Your task to perform on an android device: Nike Air Max 2020 shoes on Nike.com Image 0: 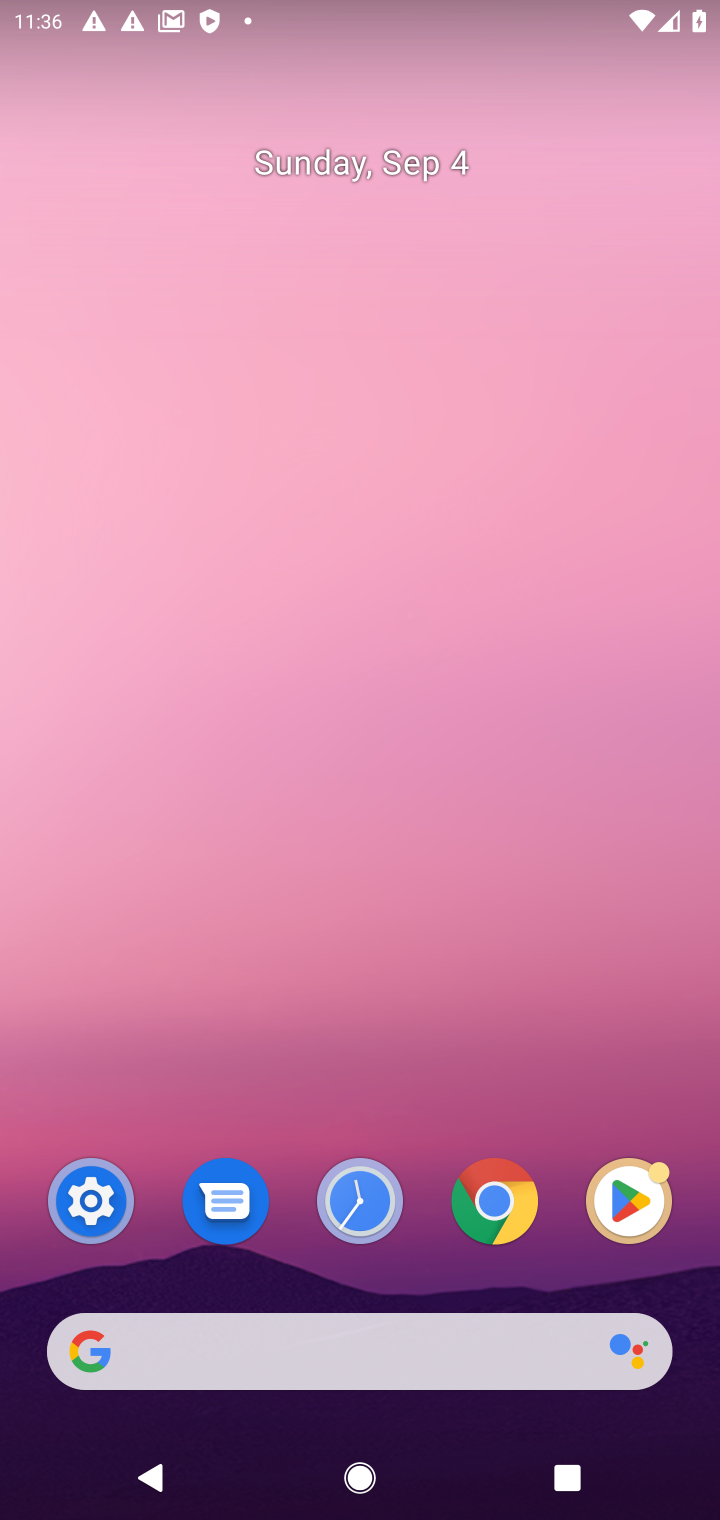
Step 0: click (521, 1201)
Your task to perform on an android device: Nike Air Max 2020 shoes on Nike.com Image 1: 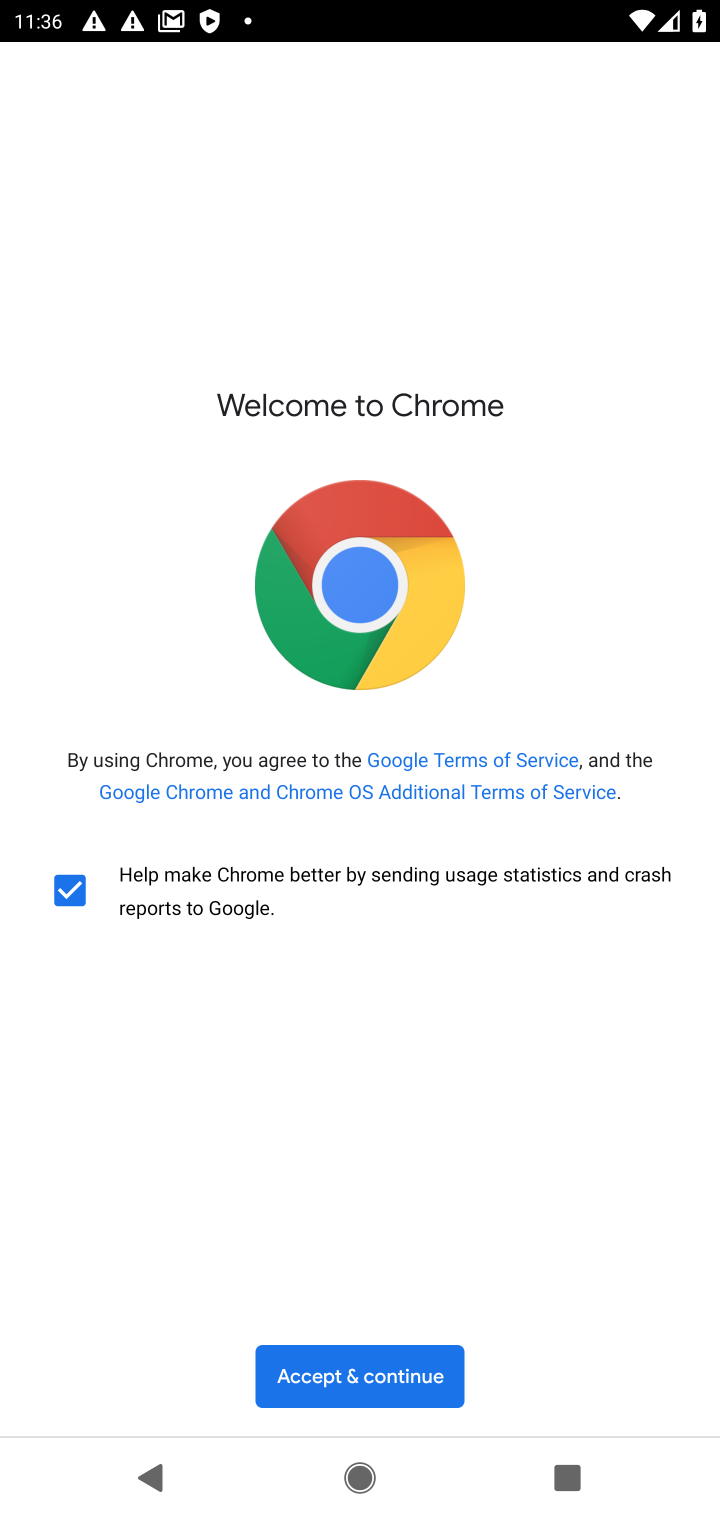
Step 1: click (330, 1373)
Your task to perform on an android device: Nike Air Max 2020 shoes on Nike.com Image 2: 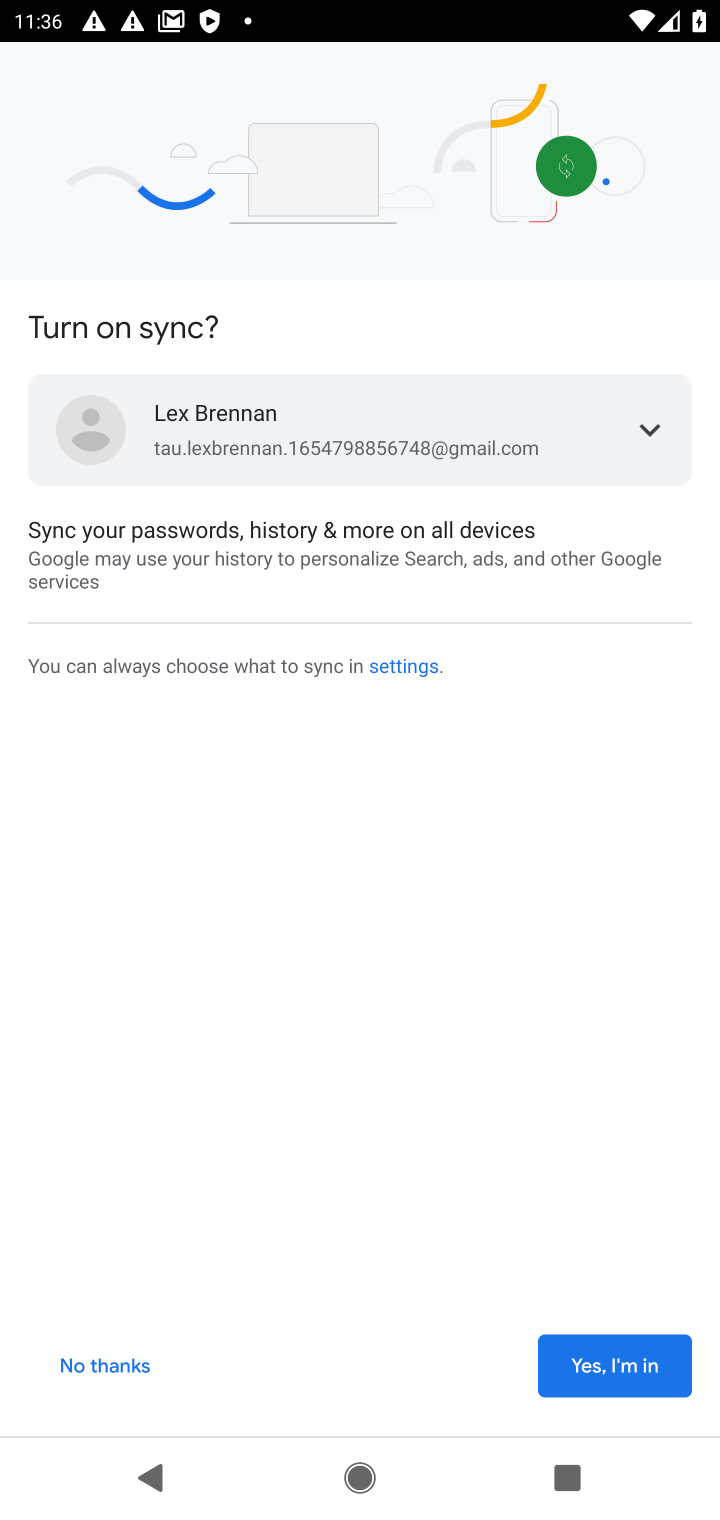
Step 2: click (587, 1365)
Your task to perform on an android device: Nike Air Max 2020 shoes on Nike.com Image 3: 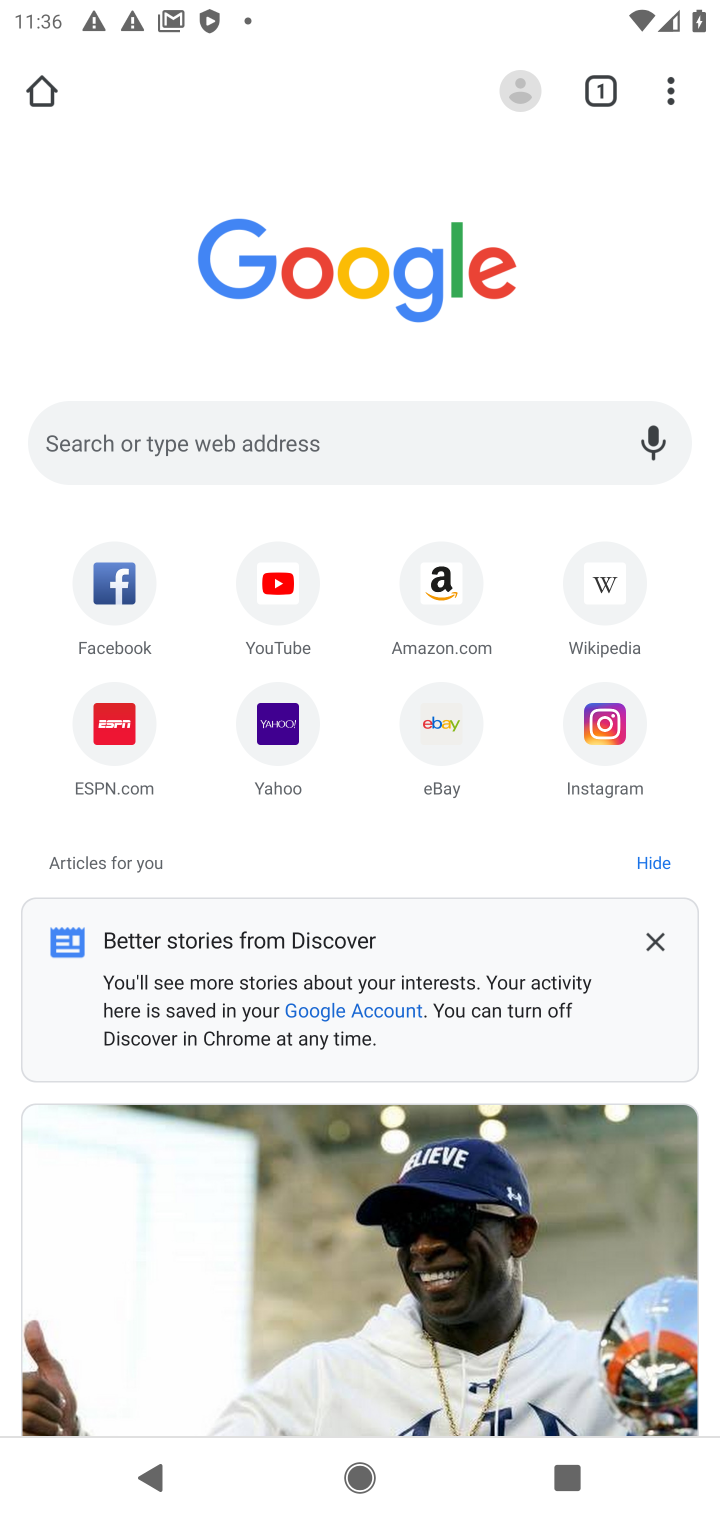
Step 3: click (286, 442)
Your task to perform on an android device: Nike Air Max 2020 shoes on Nike.com Image 4: 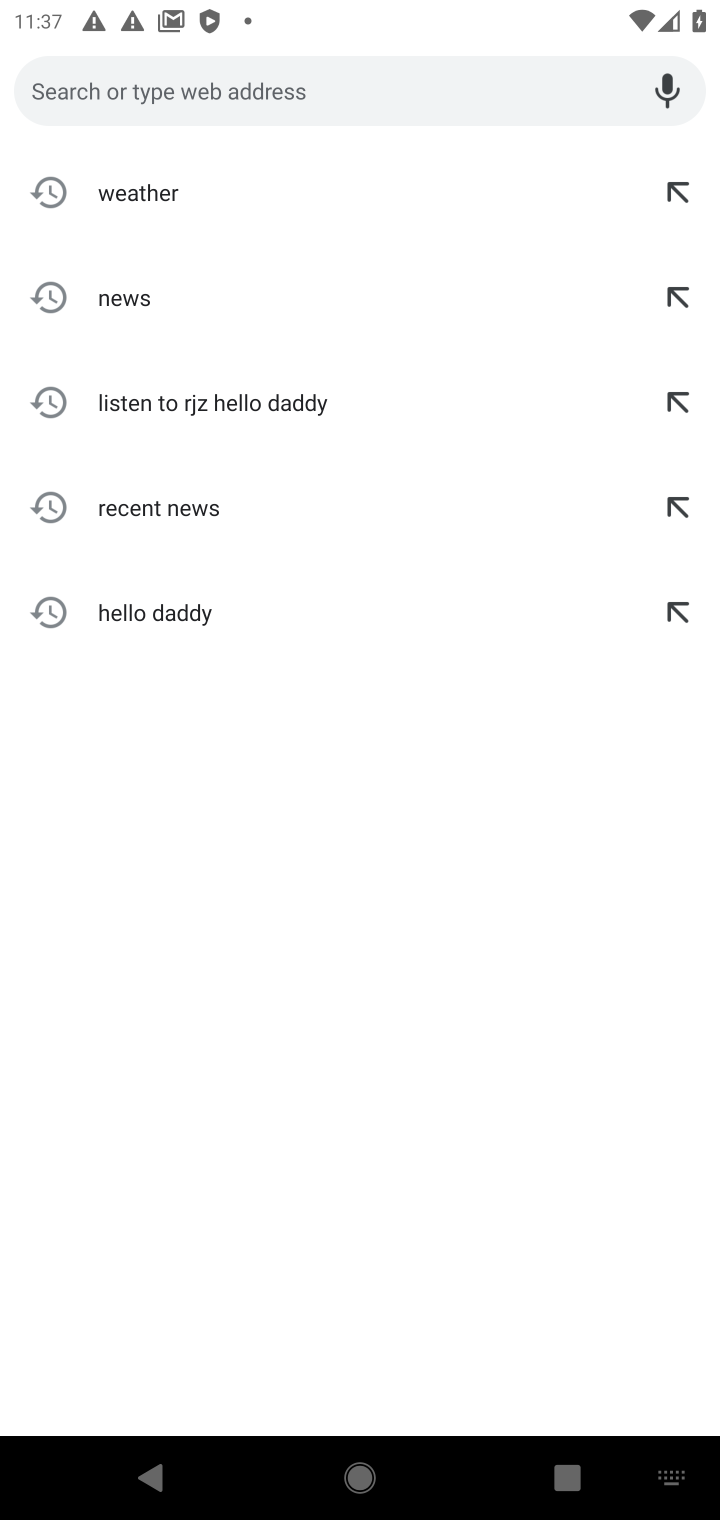
Step 4: type "nike.com"
Your task to perform on an android device: Nike Air Max 2020 shoes on Nike.com Image 5: 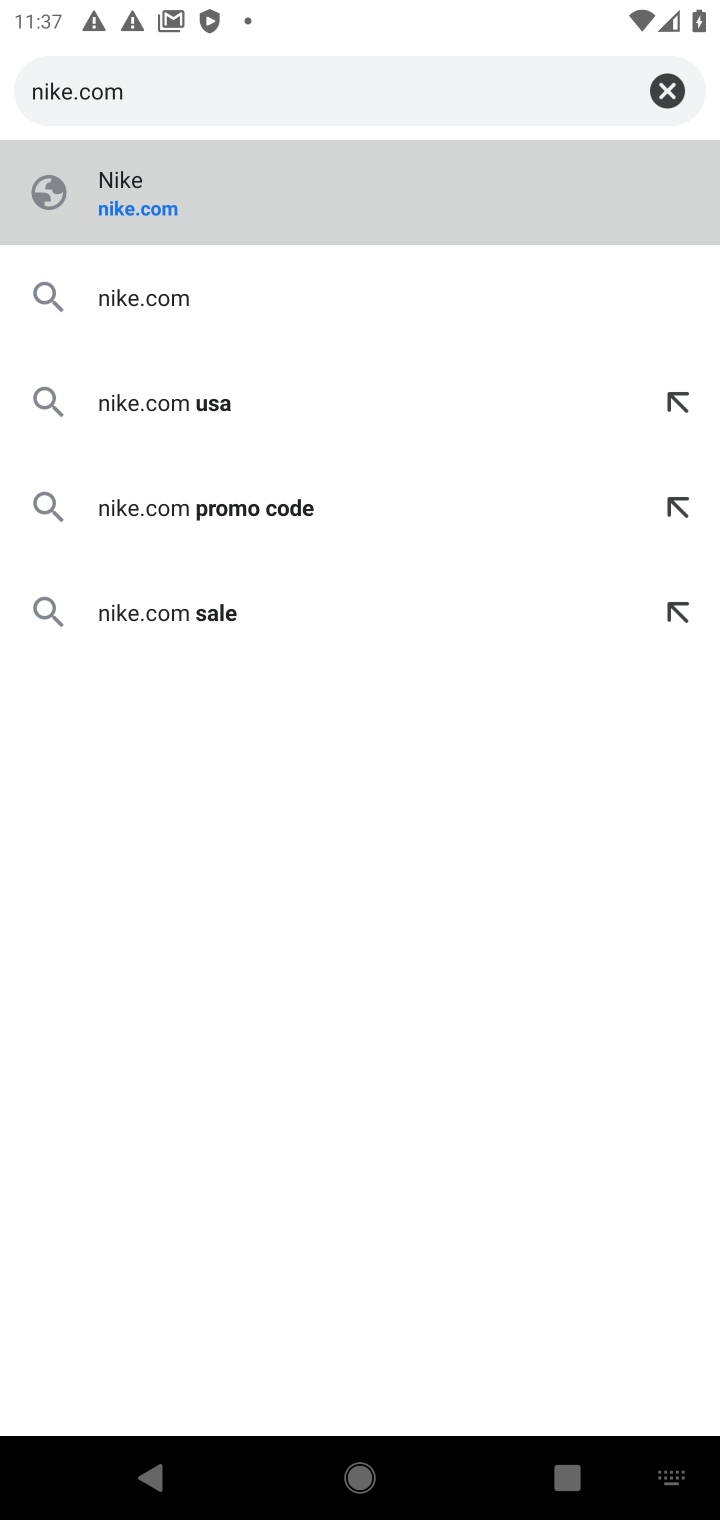
Step 5: click (182, 211)
Your task to perform on an android device: Nike Air Max 2020 shoes on Nike.com Image 6: 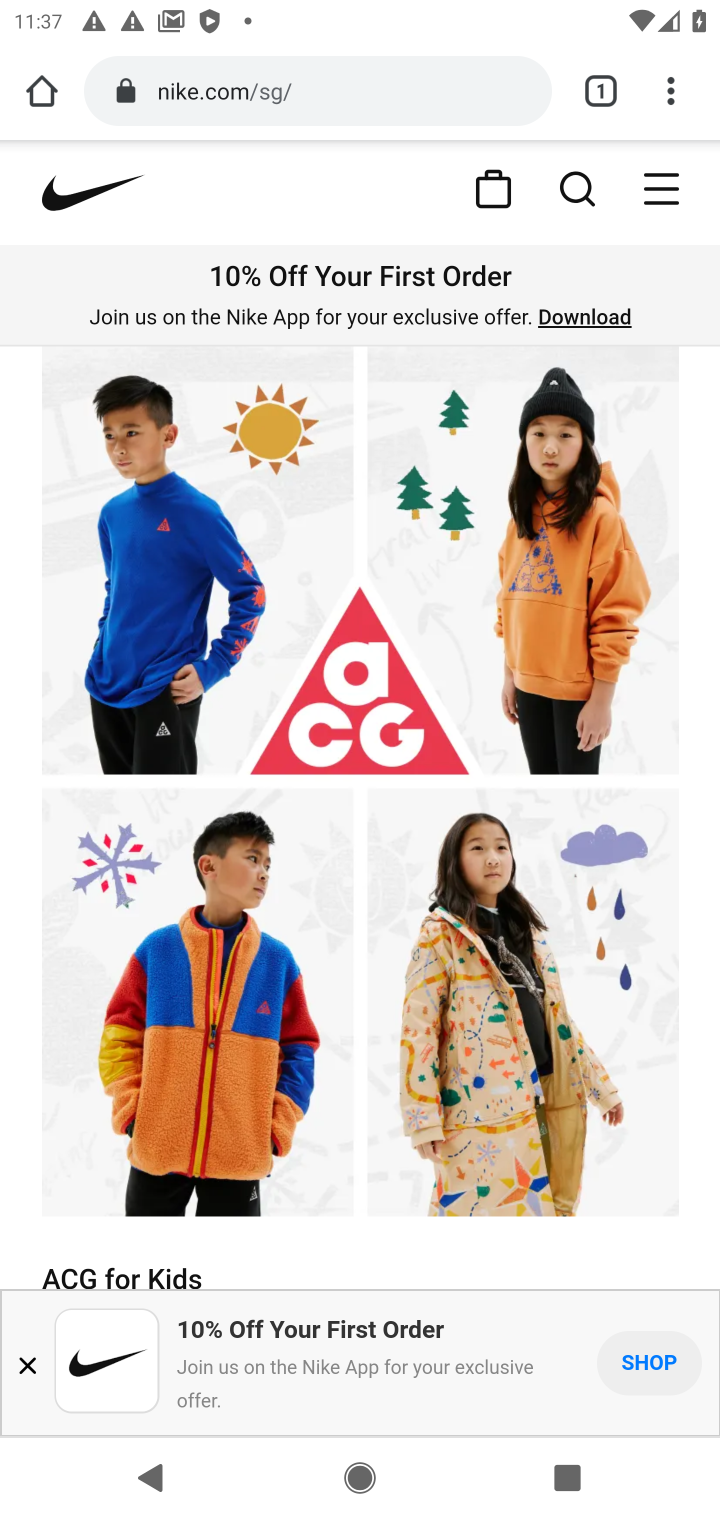
Step 6: click (562, 184)
Your task to perform on an android device: Nike Air Max 2020 shoes on Nike.com Image 7: 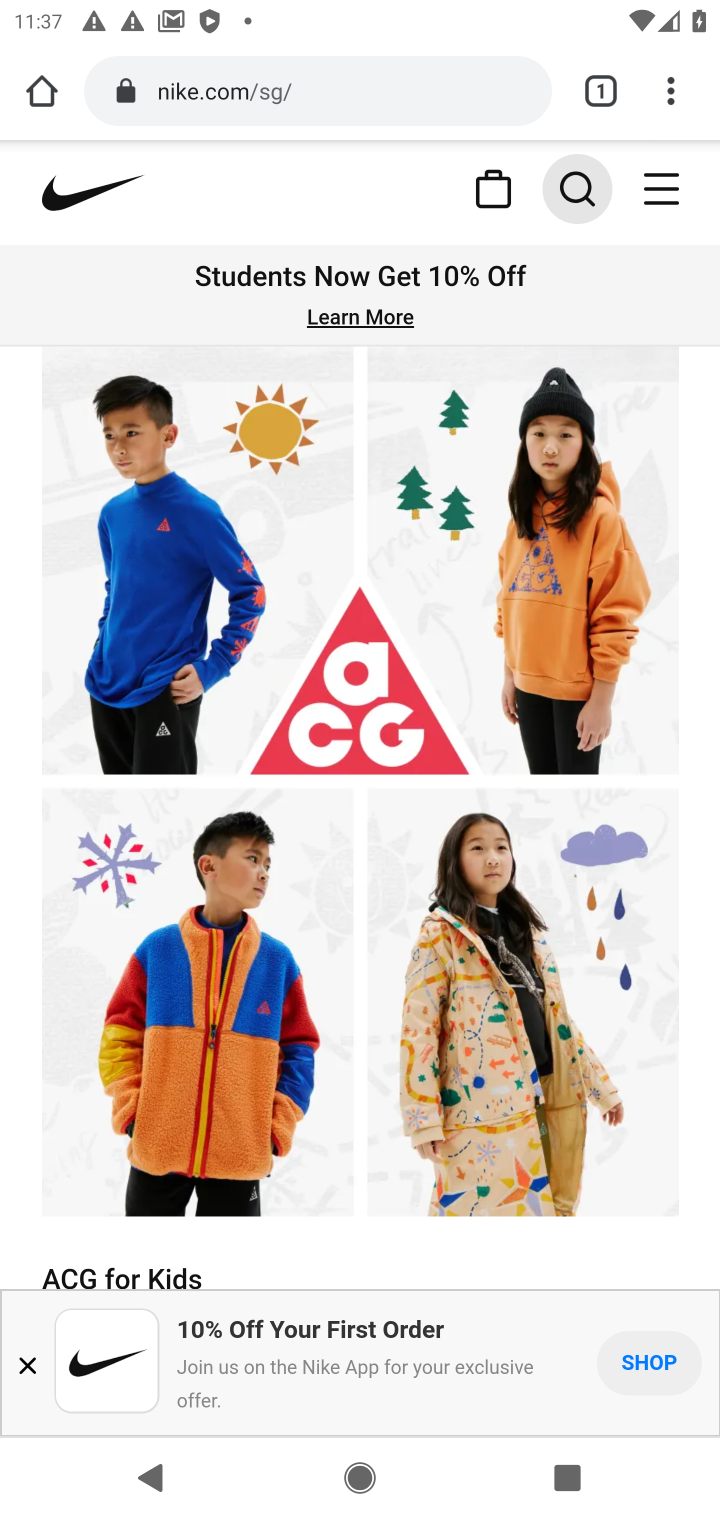
Step 7: click (568, 188)
Your task to perform on an android device: Nike Air Max 2020 shoes on Nike.com Image 8: 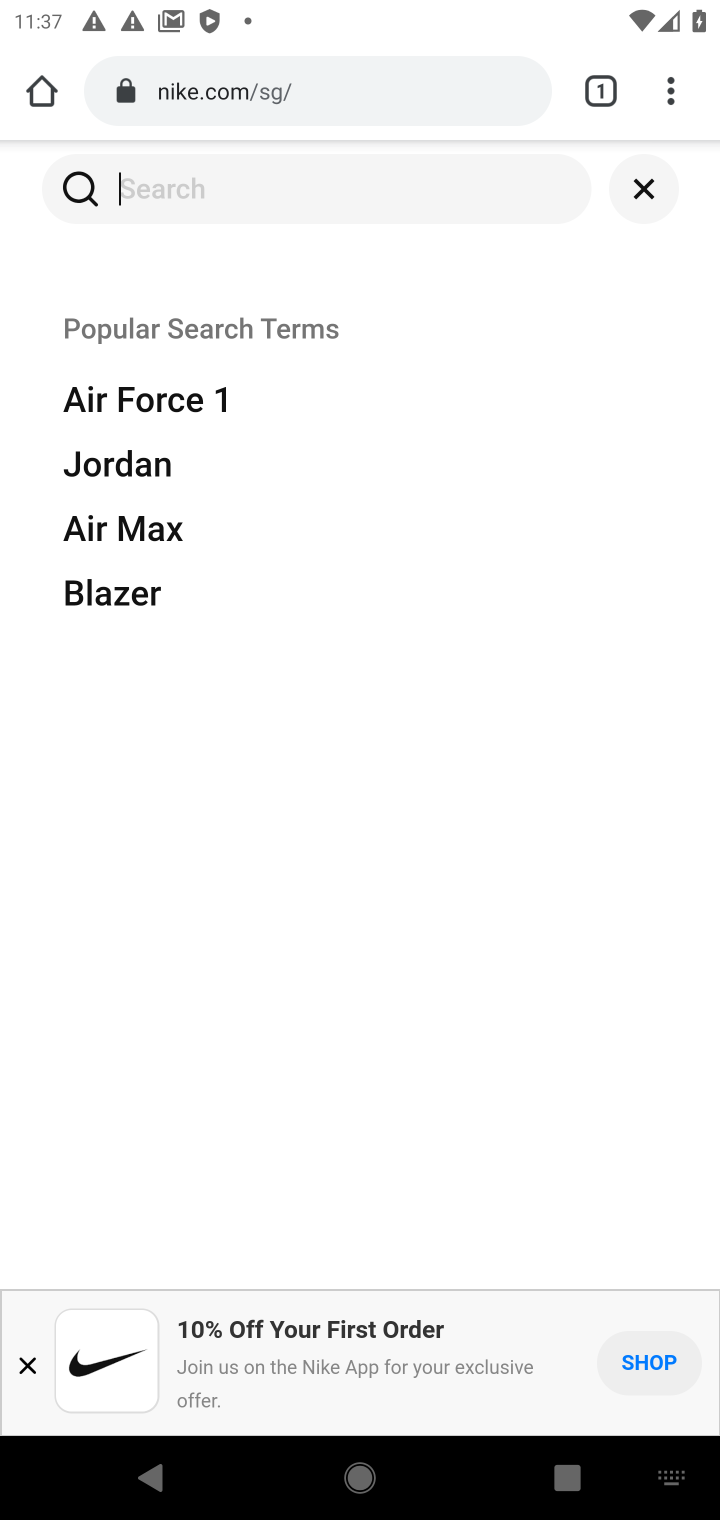
Step 8: click (134, 522)
Your task to perform on an android device: Nike Air Max 2020 shoes on Nike.com Image 9: 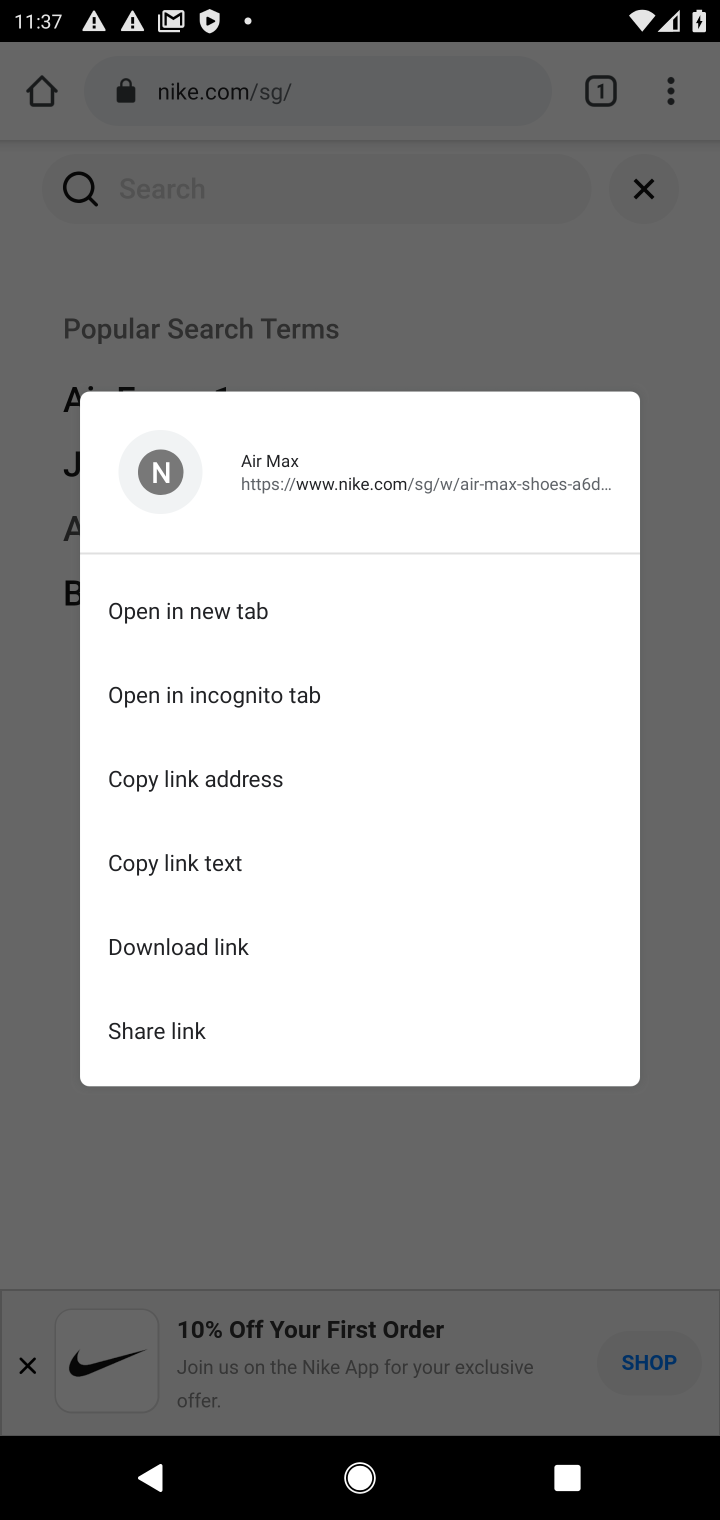
Step 9: click (48, 828)
Your task to perform on an android device: Nike Air Max 2020 shoes on Nike.com Image 10: 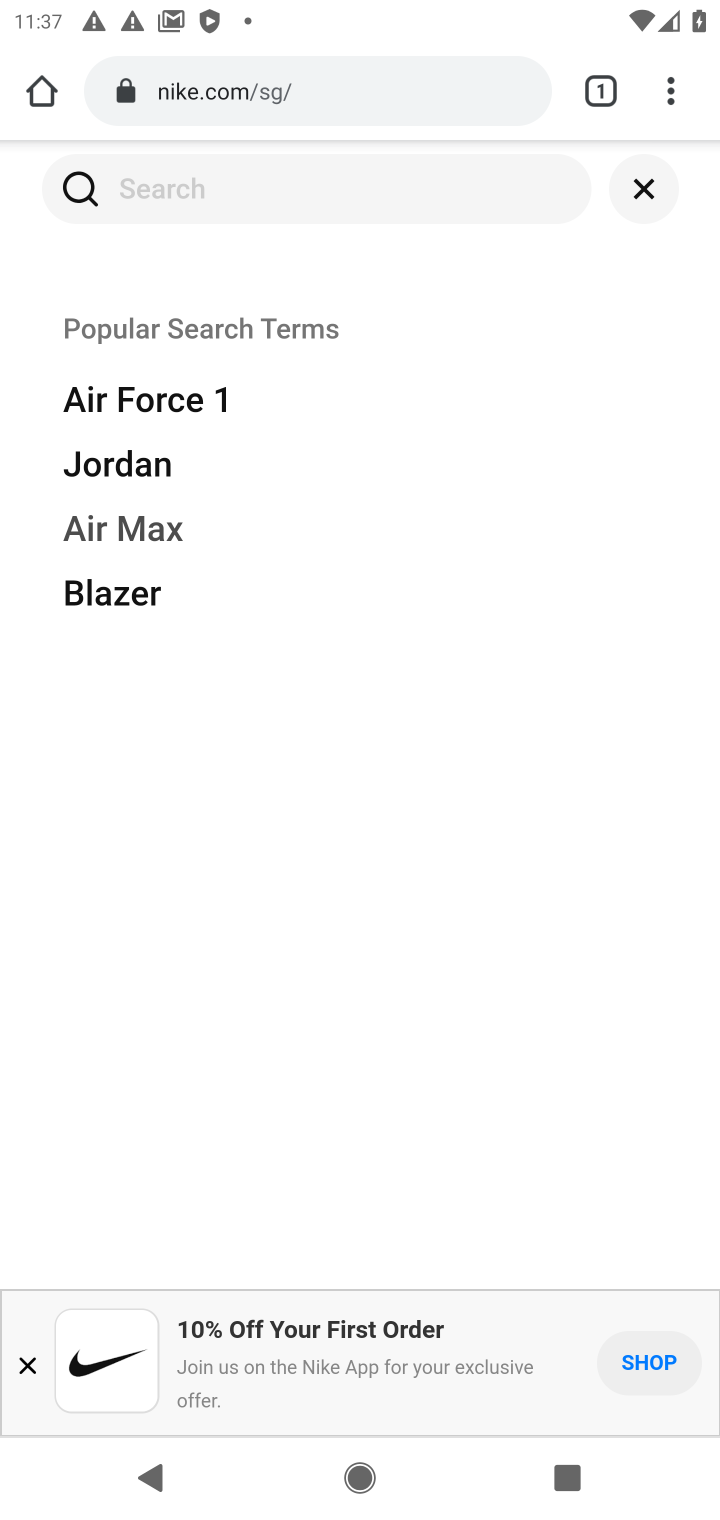
Step 10: click (221, 185)
Your task to perform on an android device: Nike Air Max 2020 shoes on Nike.com Image 11: 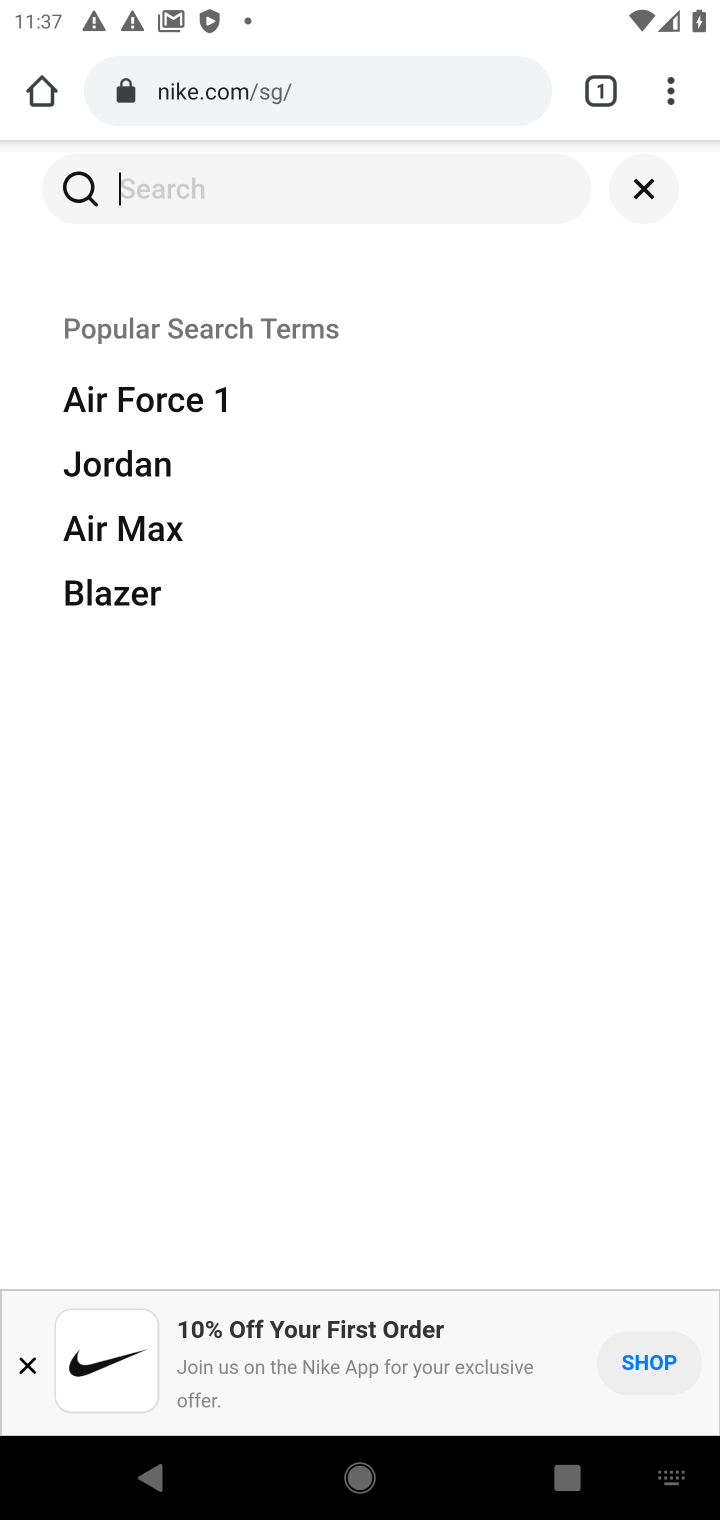
Step 11: type "air max 2020"
Your task to perform on an android device: Nike Air Max 2020 shoes on Nike.com Image 12: 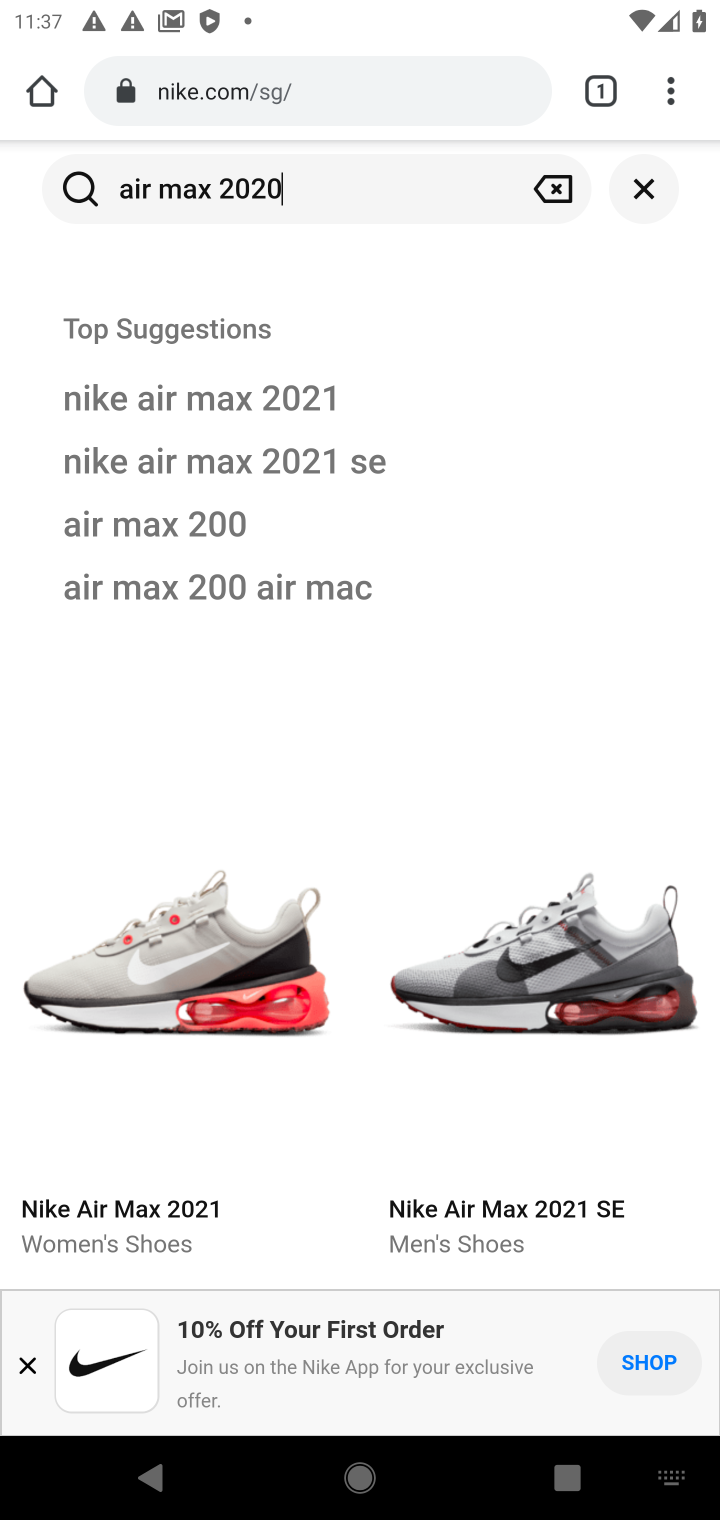
Step 12: click (124, 515)
Your task to perform on an android device: Nike Air Max 2020 shoes on Nike.com Image 13: 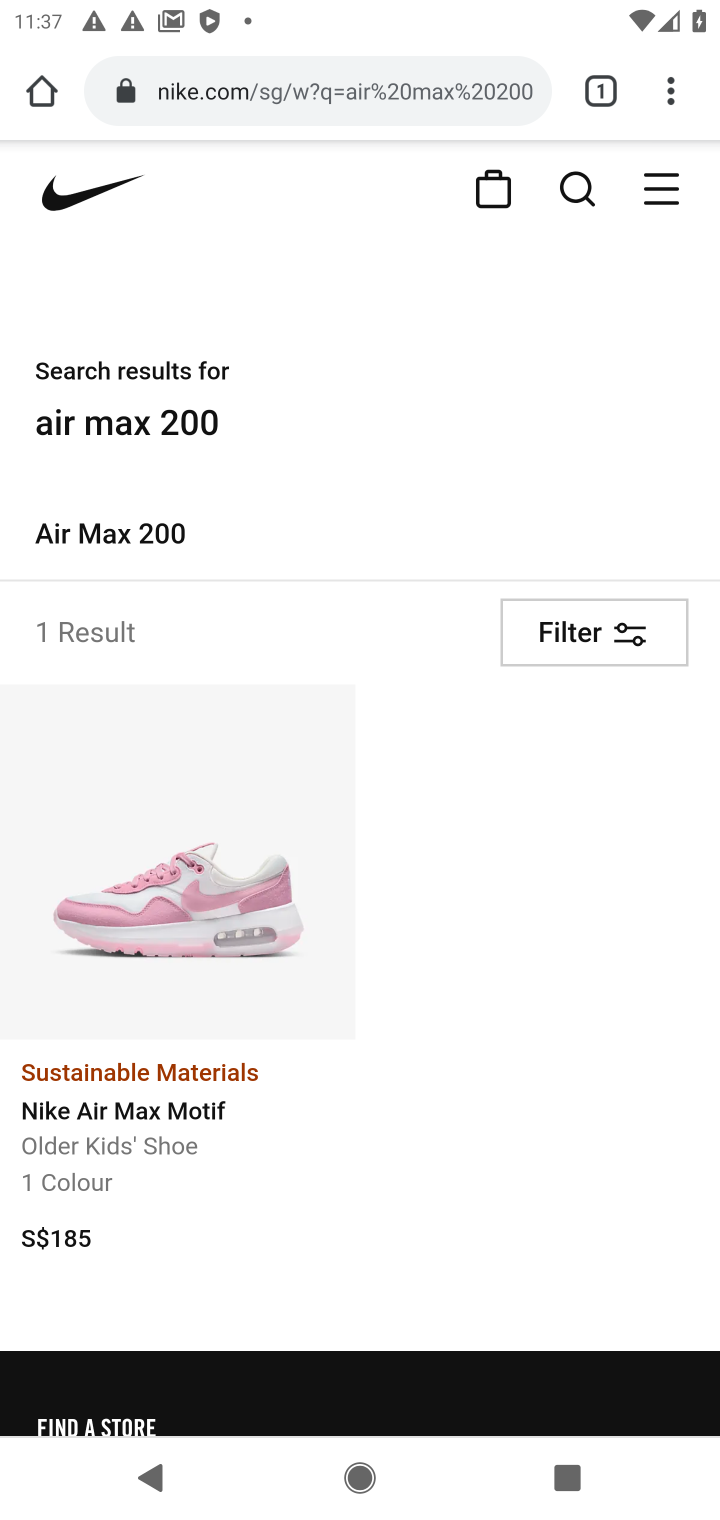
Step 13: drag from (179, 720) to (199, 447)
Your task to perform on an android device: Nike Air Max 2020 shoes on Nike.com Image 14: 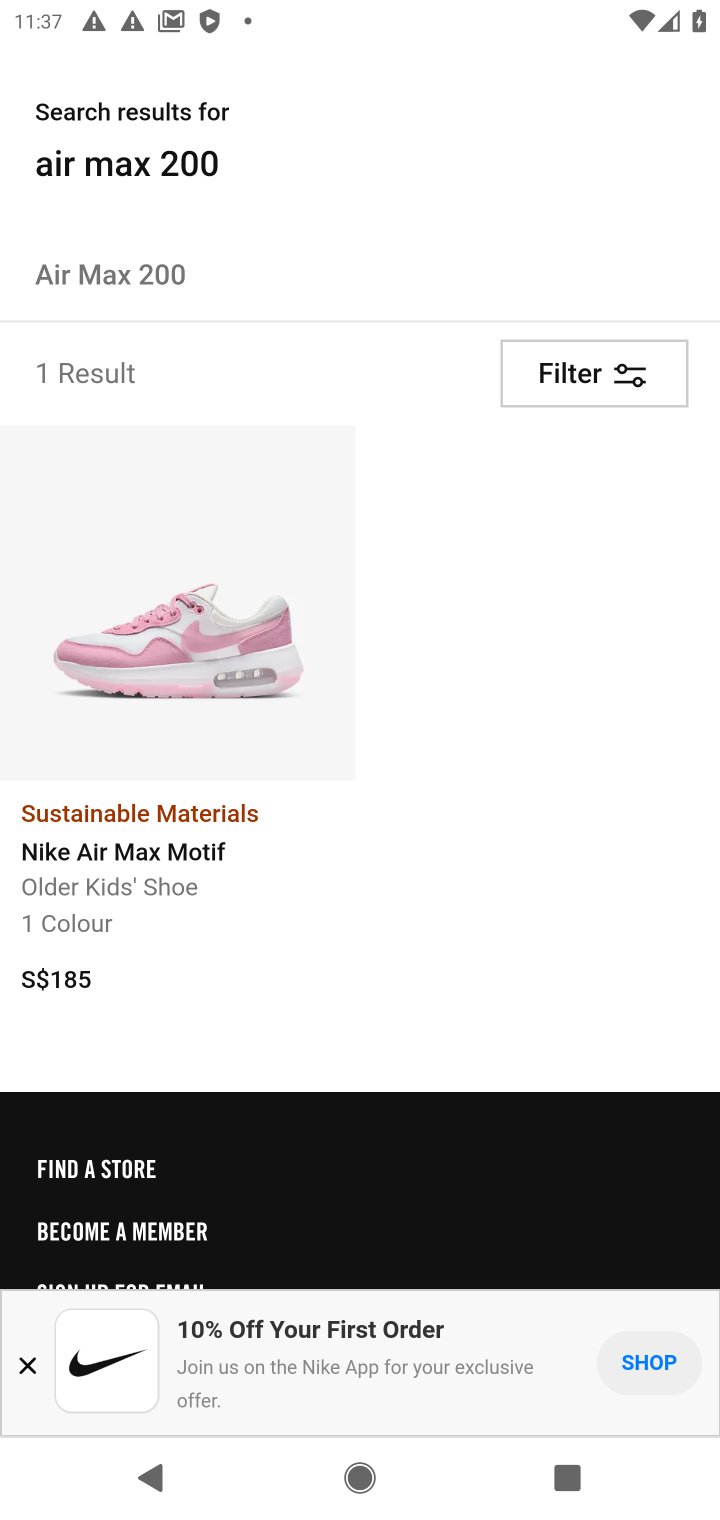
Step 14: drag from (431, 891) to (405, 471)
Your task to perform on an android device: Nike Air Max 2020 shoes on Nike.com Image 15: 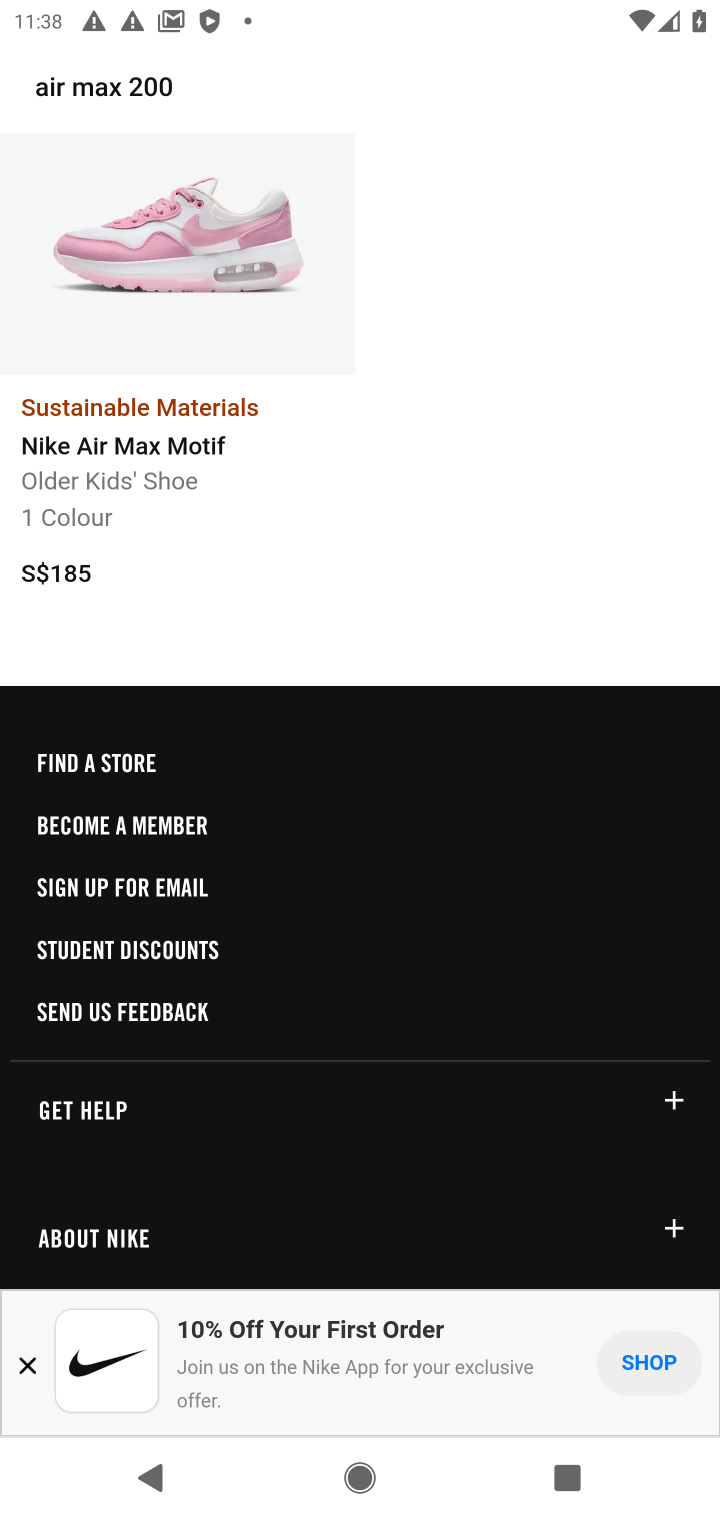
Step 15: drag from (423, 490) to (467, 107)
Your task to perform on an android device: Nike Air Max 2020 shoes on Nike.com Image 16: 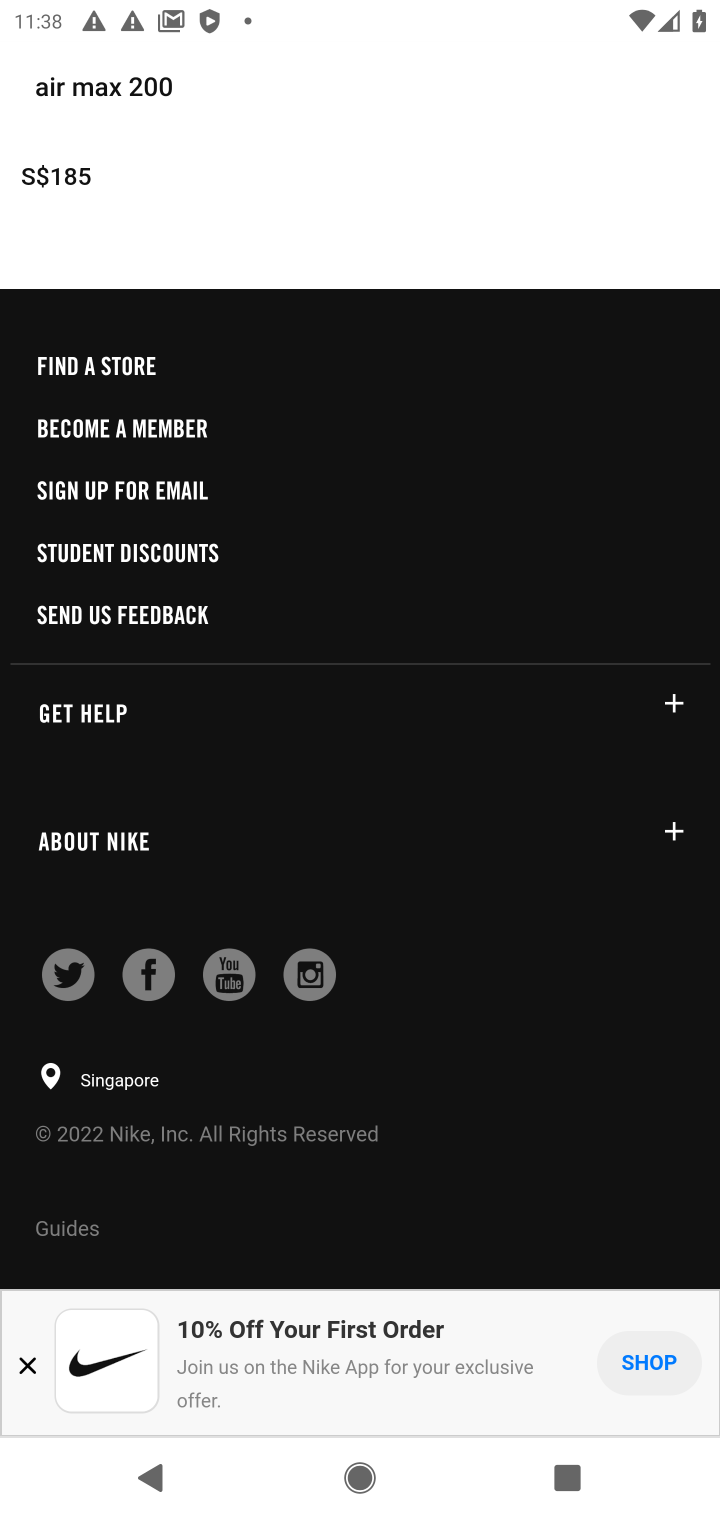
Step 16: drag from (573, 183) to (568, 1067)
Your task to perform on an android device: Nike Air Max 2020 shoes on Nike.com Image 17: 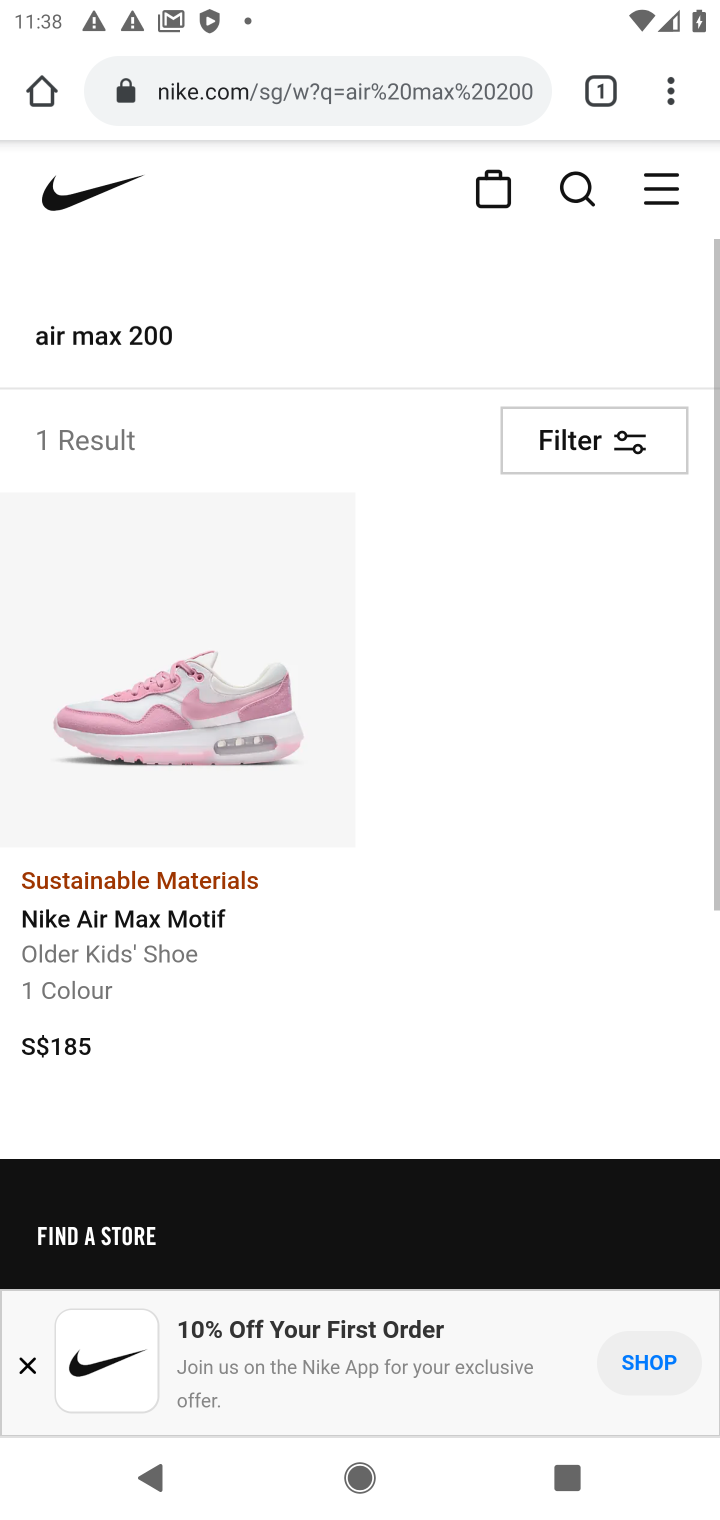
Step 17: drag from (367, 471) to (326, 1119)
Your task to perform on an android device: Nike Air Max 2020 shoes on Nike.com Image 18: 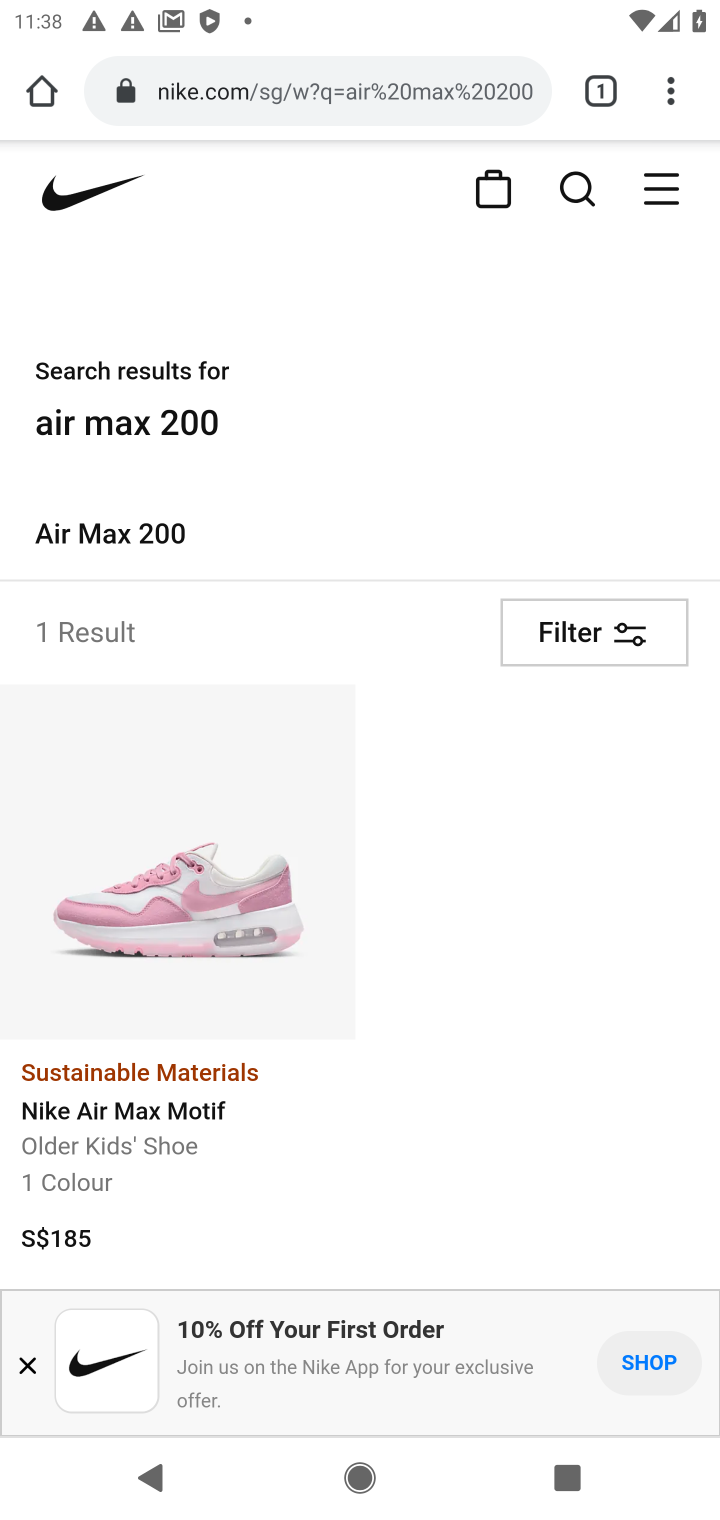
Step 18: drag from (493, 1041) to (468, 1207)
Your task to perform on an android device: Nike Air Max 2020 shoes on Nike.com Image 19: 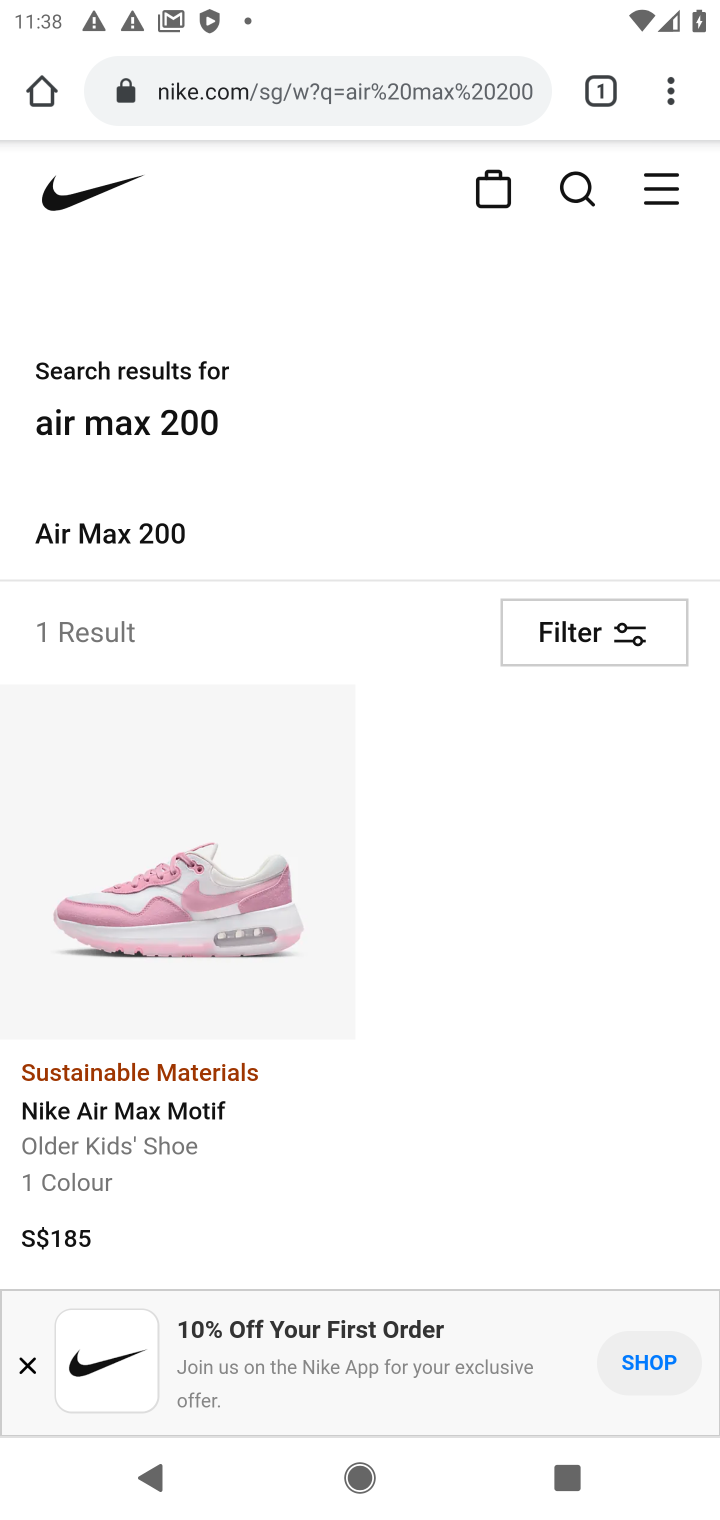
Step 19: click (217, 898)
Your task to perform on an android device: Nike Air Max 2020 shoes on Nike.com Image 20: 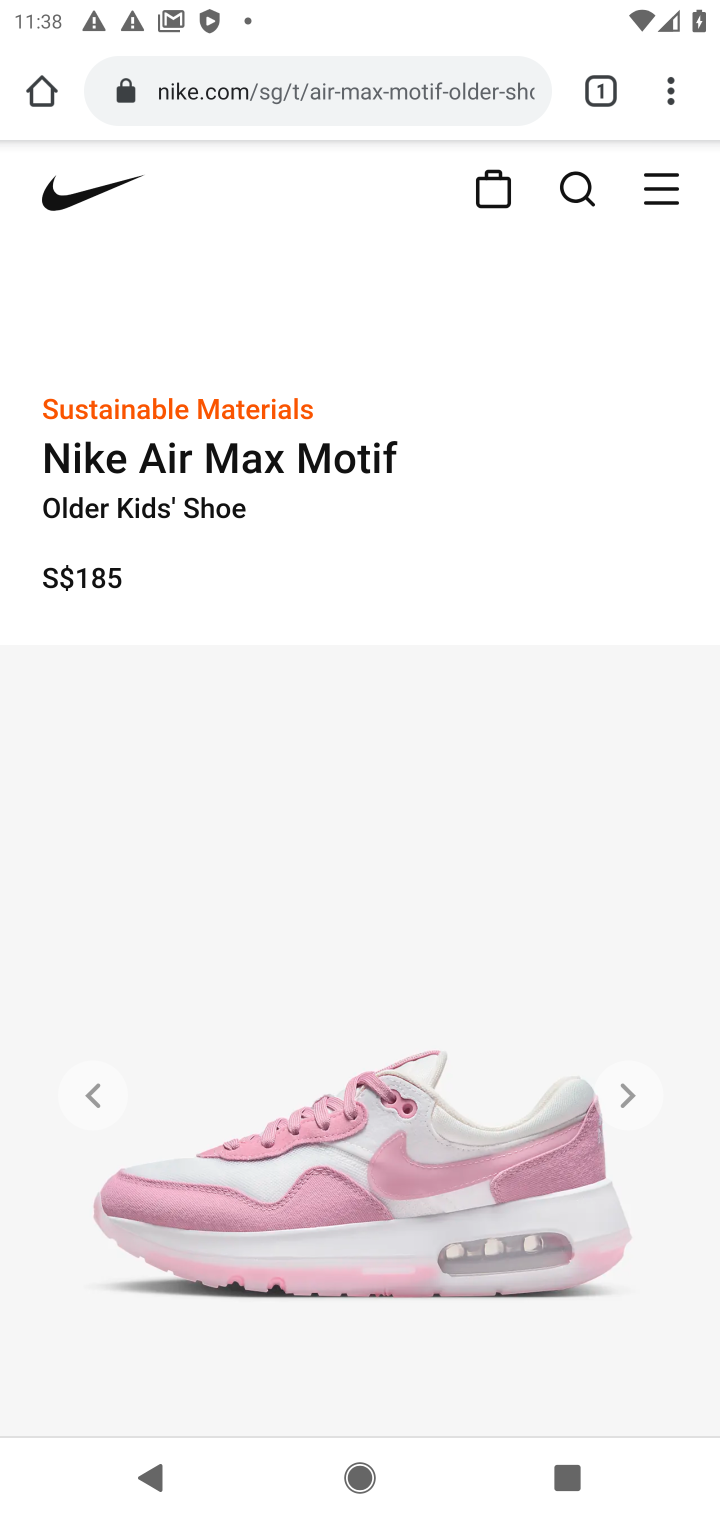
Step 20: task complete